Your task to perform on an android device: Go to network settings Image 0: 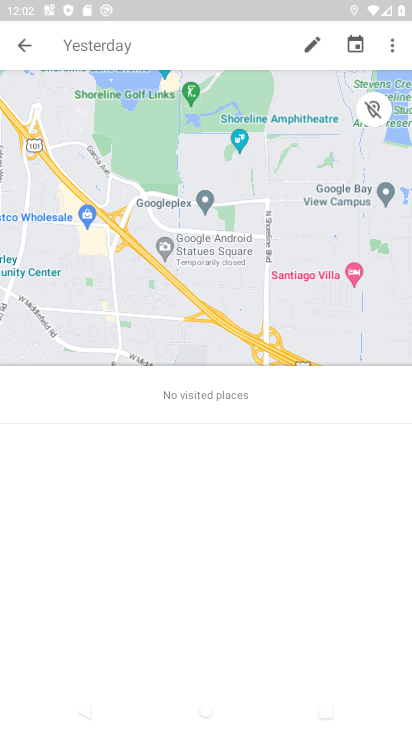
Step 0: press home button
Your task to perform on an android device: Go to network settings Image 1: 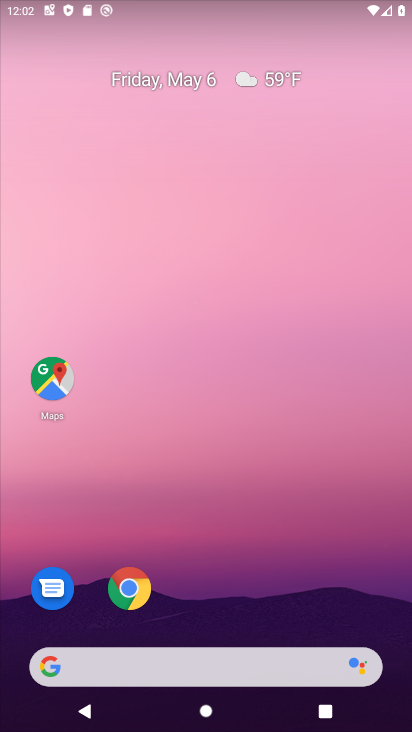
Step 1: drag from (289, 518) to (269, 48)
Your task to perform on an android device: Go to network settings Image 2: 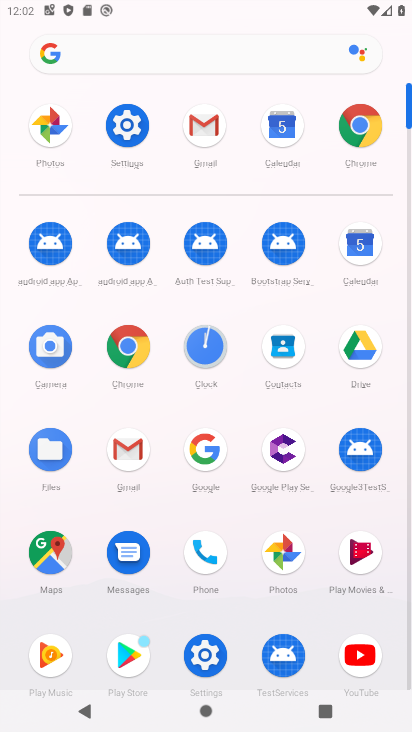
Step 2: click (130, 121)
Your task to perform on an android device: Go to network settings Image 3: 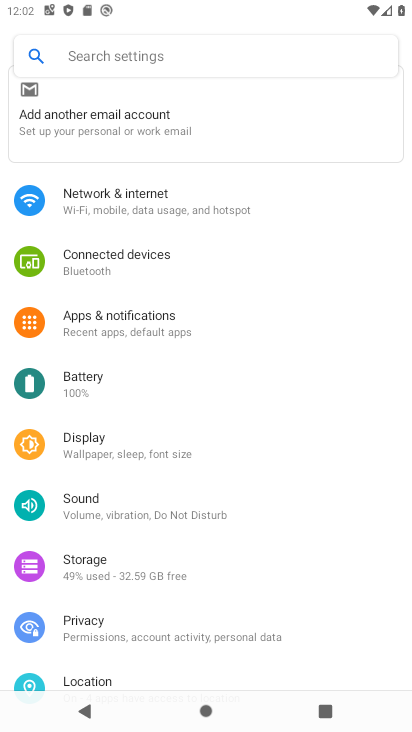
Step 3: click (180, 207)
Your task to perform on an android device: Go to network settings Image 4: 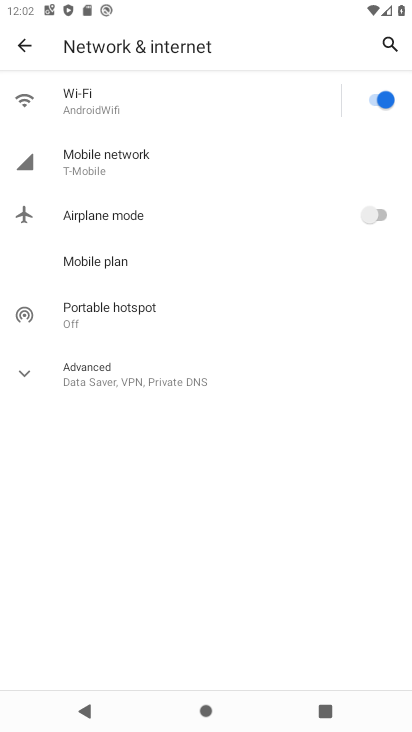
Step 4: task complete